Your task to perform on an android device: Open calendar and show me the first week of next month Image 0: 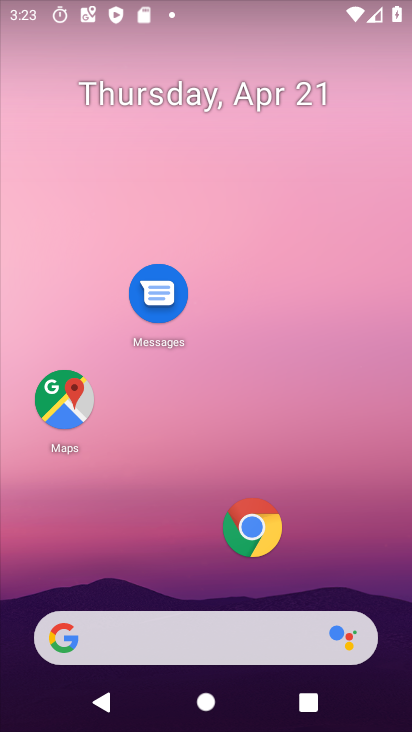
Step 0: drag from (215, 597) to (293, 244)
Your task to perform on an android device: Open calendar and show me the first week of next month Image 1: 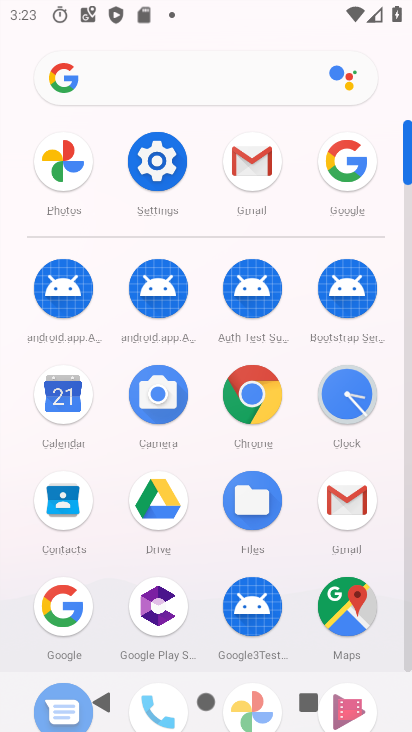
Step 1: click (62, 402)
Your task to perform on an android device: Open calendar and show me the first week of next month Image 2: 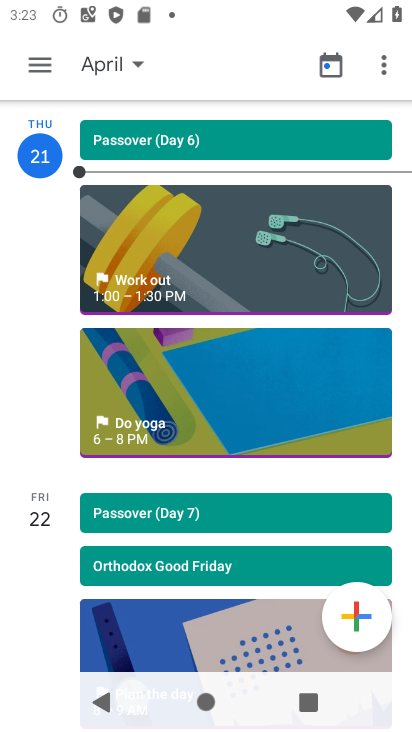
Step 2: click (117, 67)
Your task to perform on an android device: Open calendar and show me the first week of next month Image 3: 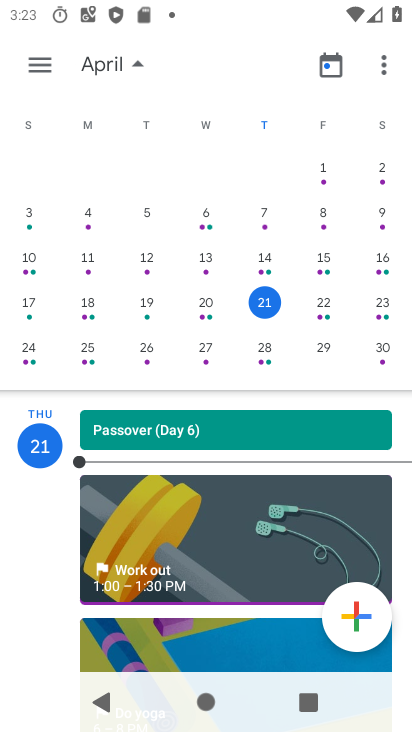
Step 3: drag from (374, 265) to (14, 262)
Your task to perform on an android device: Open calendar and show me the first week of next month Image 4: 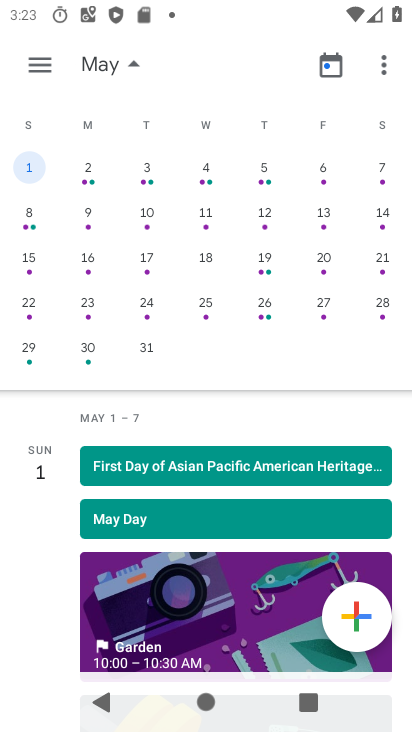
Step 4: click (29, 170)
Your task to perform on an android device: Open calendar and show me the first week of next month Image 5: 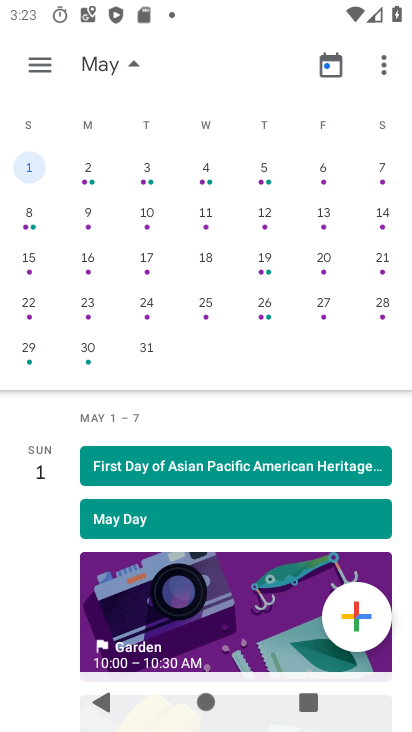
Step 5: task complete